Your task to perform on an android device: turn notification dots on Image 0: 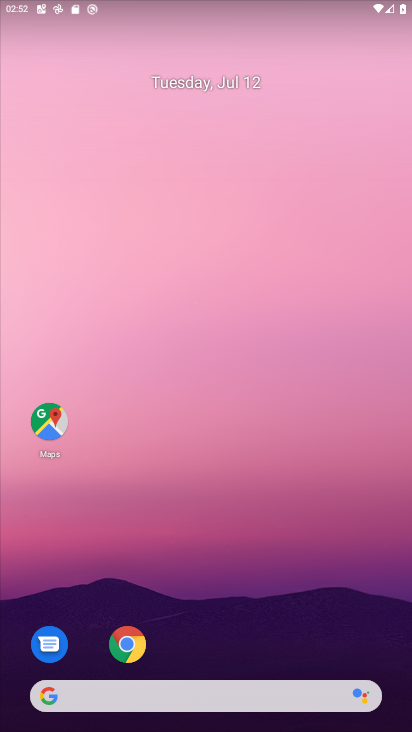
Step 0: drag from (190, 668) to (178, 193)
Your task to perform on an android device: turn notification dots on Image 1: 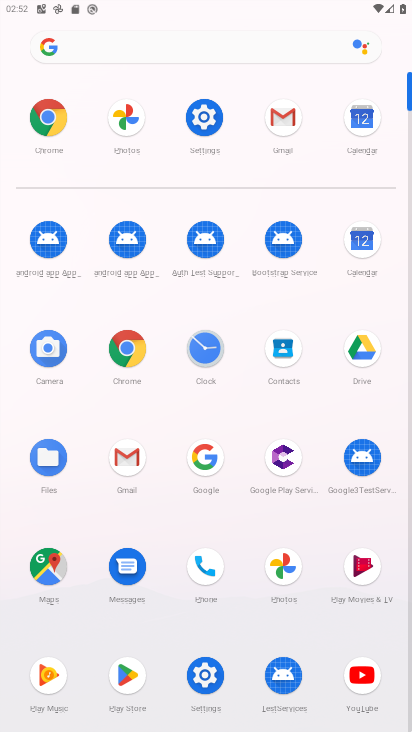
Step 1: click (203, 671)
Your task to perform on an android device: turn notification dots on Image 2: 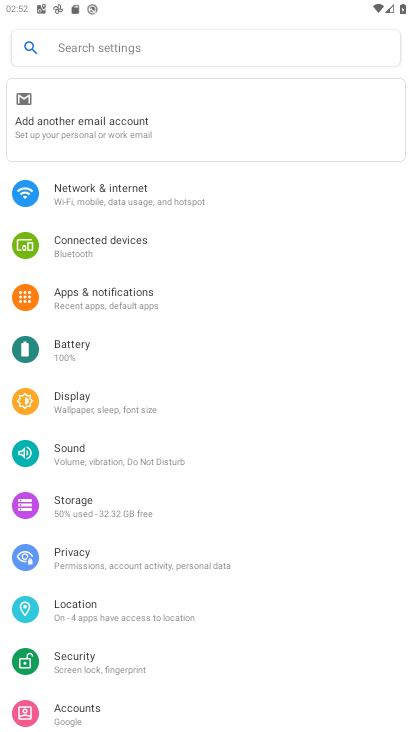
Step 2: click (168, 312)
Your task to perform on an android device: turn notification dots on Image 3: 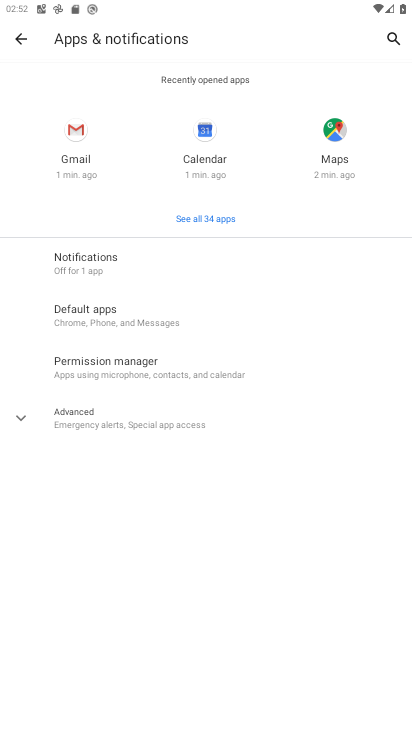
Step 3: click (120, 430)
Your task to perform on an android device: turn notification dots on Image 4: 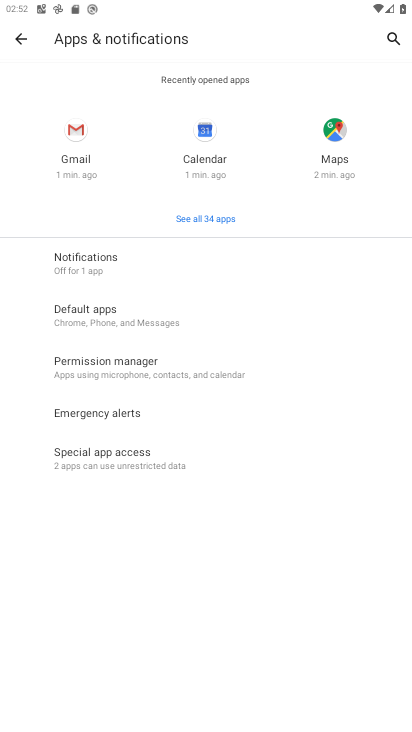
Step 4: click (129, 259)
Your task to perform on an android device: turn notification dots on Image 5: 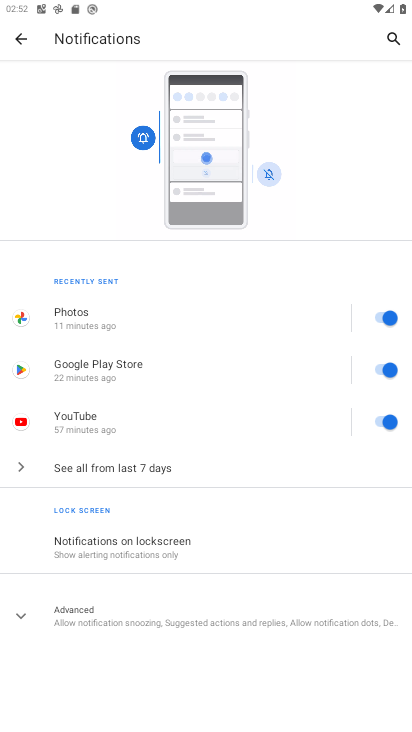
Step 5: click (107, 618)
Your task to perform on an android device: turn notification dots on Image 6: 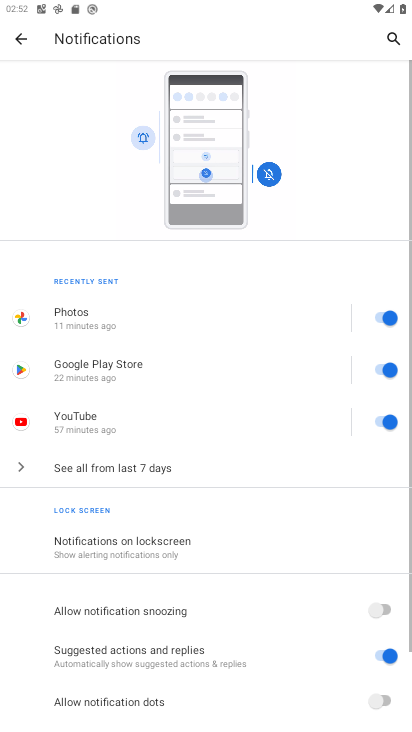
Step 6: drag from (143, 632) to (158, 247)
Your task to perform on an android device: turn notification dots on Image 7: 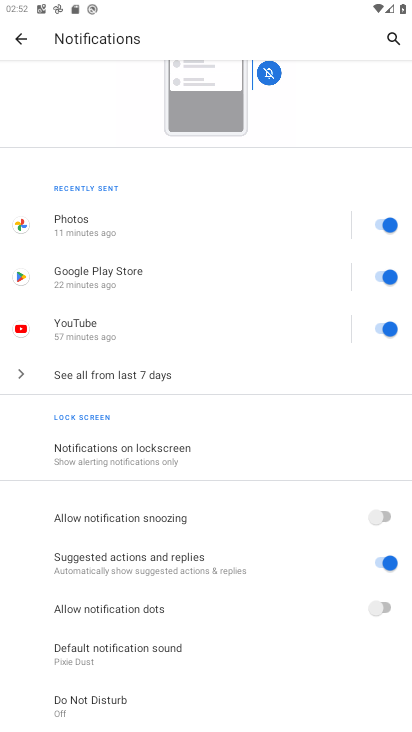
Step 7: click (376, 608)
Your task to perform on an android device: turn notification dots on Image 8: 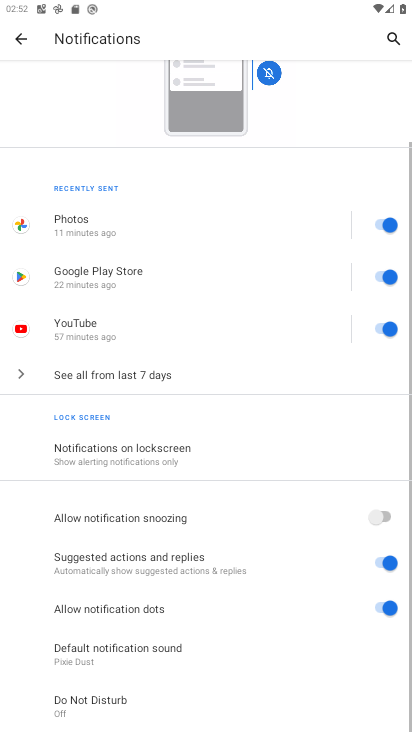
Step 8: task complete